Your task to perform on an android device: What's the weather? Image 0: 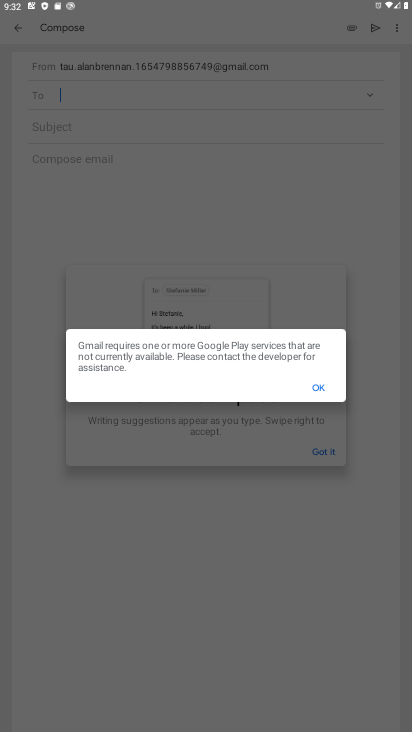
Step 0: press home button
Your task to perform on an android device: What's the weather? Image 1: 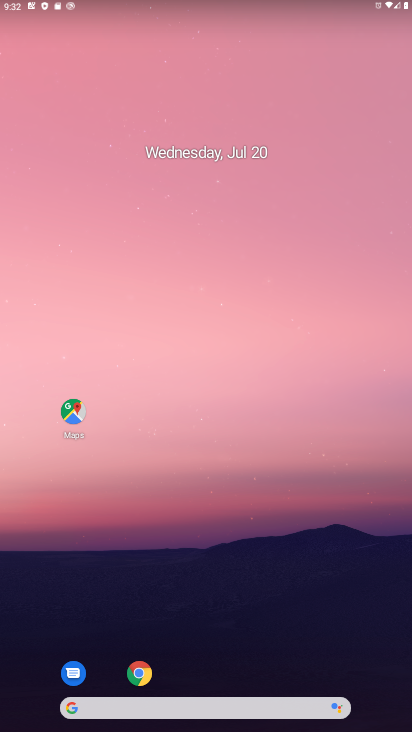
Step 1: drag from (227, 713) to (227, 273)
Your task to perform on an android device: What's the weather? Image 2: 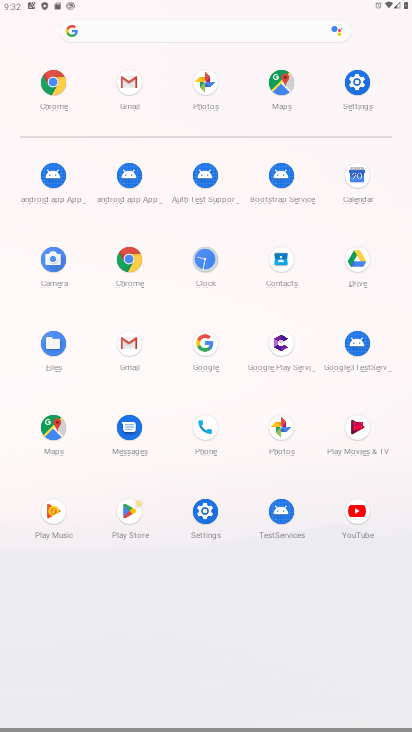
Step 2: click (360, 177)
Your task to perform on an android device: What's the weather? Image 3: 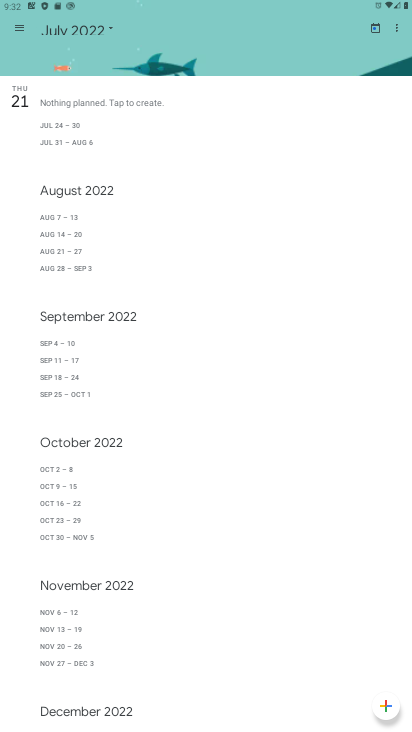
Step 3: click (110, 22)
Your task to perform on an android device: What's the weather? Image 4: 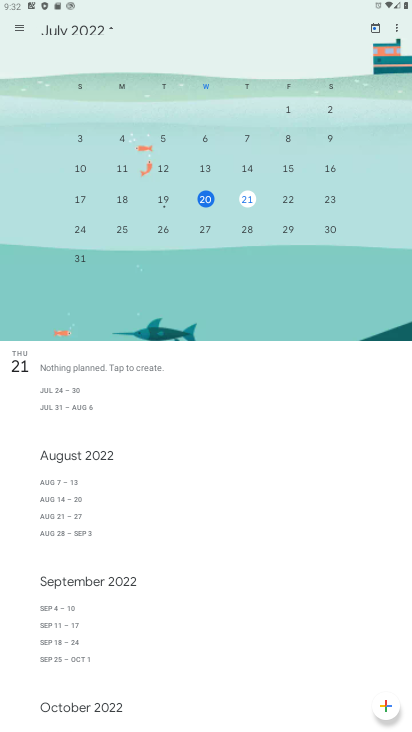
Step 4: click (246, 197)
Your task to perform on an android device: What's the weather? Image 5: 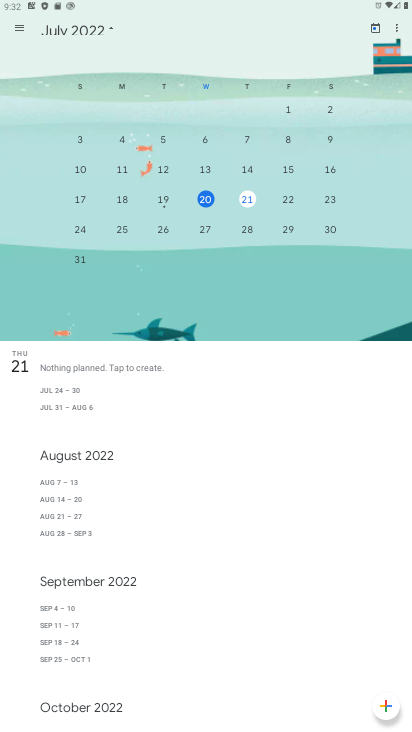
Step 5: click (23, 363)
Your task to perform on an android device: What's the weather? Image 6: 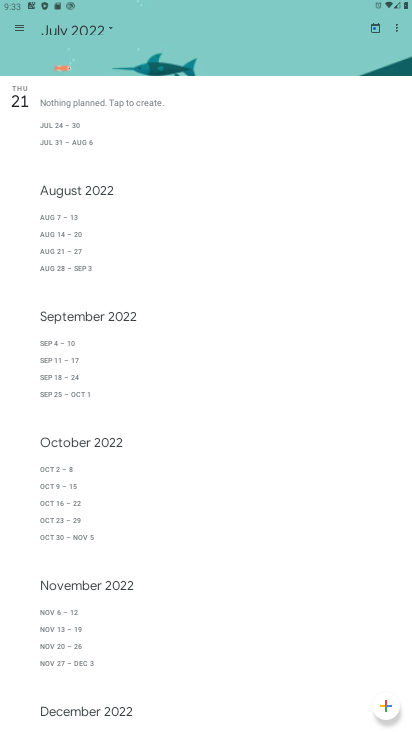
Step 6: task complete